Your task to perform on an android device: stop showing notifications on the lock screen Image 0: 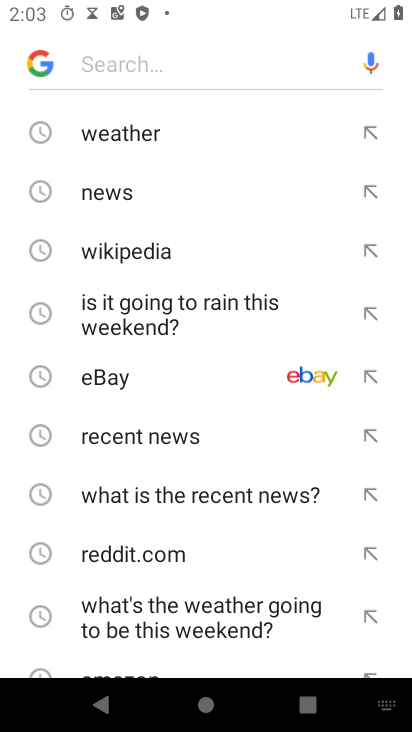
Step 0: press home button
Your task to perform on an android device: stop showing notifications on the lock screen Image 1: 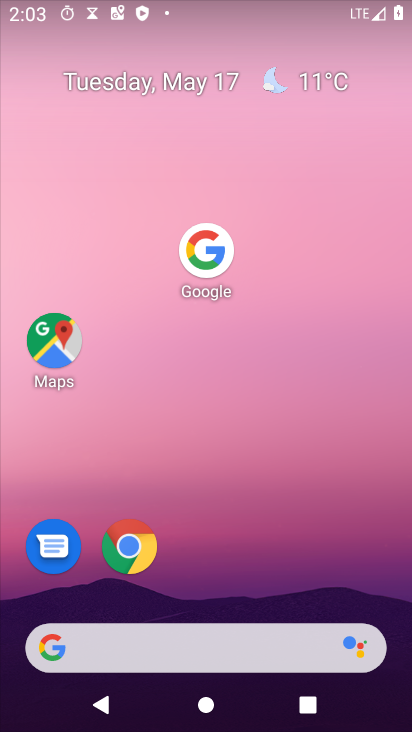
Step 1: drag from (167, 647) to (308, 203)
Your task to perform on an android device: stop showing notifications on the lock screen Image 2: 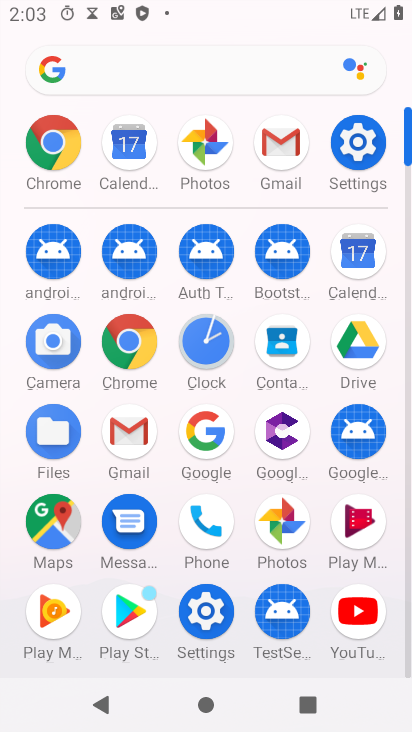
Step 2: click (358, 153)
Your task to perform on an android device: stop showing notifications on the lock screen Image 3: 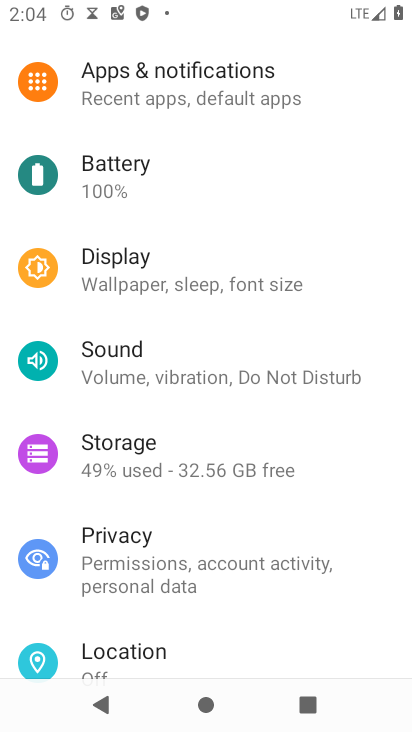
Step 3: click (229, 86)
Your task to perform on an android device: stop showing notifications on the lock screen Image 4: 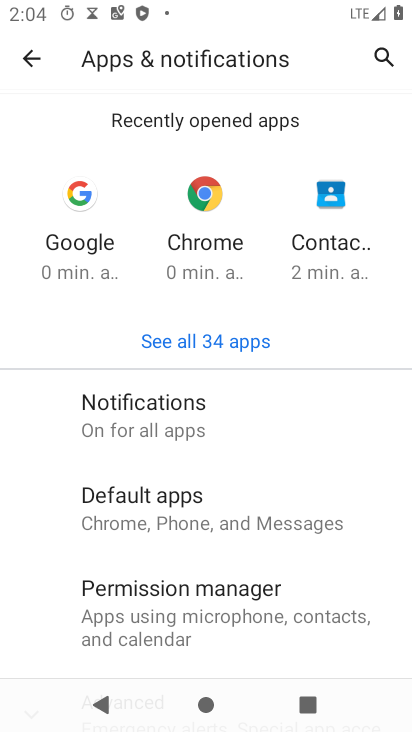
Step 4: click (170, 421)
Your task to perform on an android device: stop showing notifications on the lock screen Image 5: 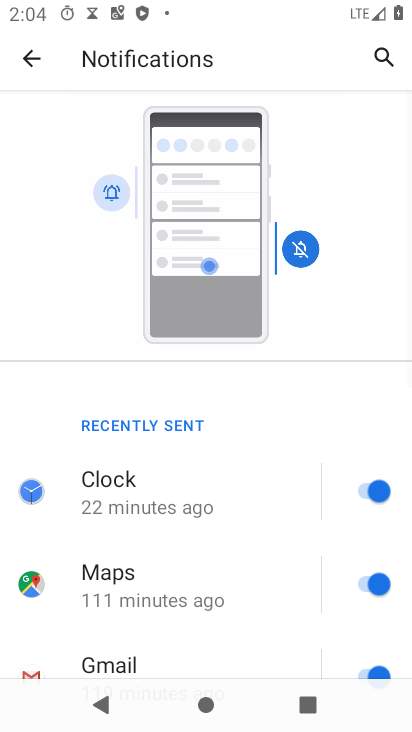
Step 5: drag from (222, 557) to (376, 141)
Your task to perform on an android device: stop showing notifications on the lock screen Image 6: 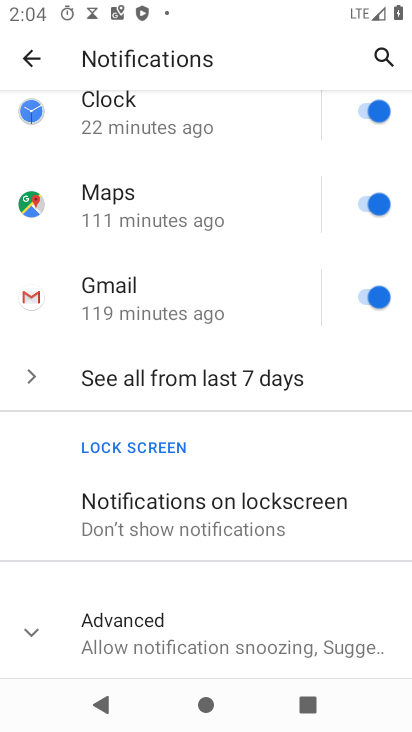
Step 6: click (221, 504)
Your task to perform on an android device: stop showing notifications on the lock screen Image 7: 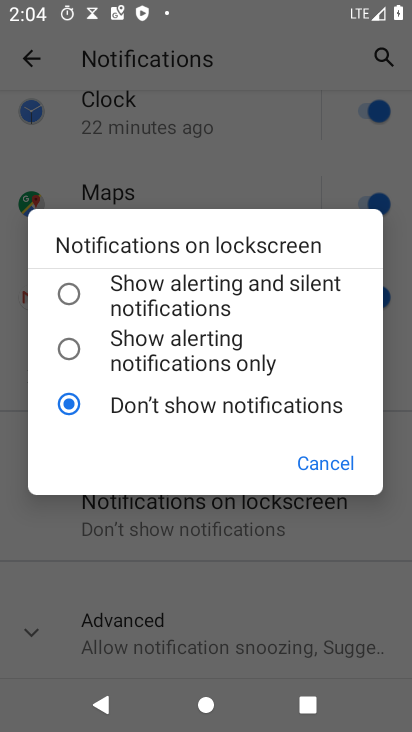
Step 7: task complete